Your task to perform on an android device: turn smart compose on in the gmail app Image 0: 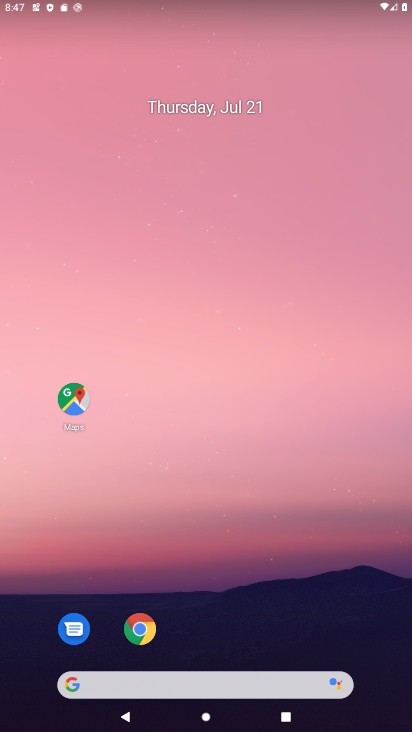
Step 0: drag from (193, 648) to (249, 82)
Your task to perform on an android device: turn smart compose on in the gmail app Image 1: 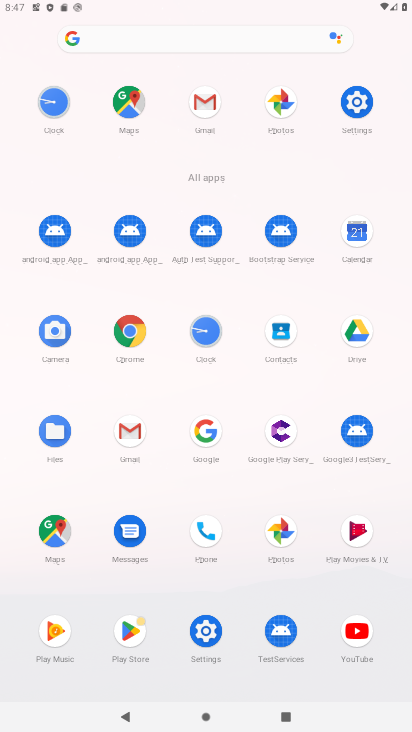
Step 1: click (201, 100)
Your task to perform on an android device: turn smart compose on in the gmail app Image 2: 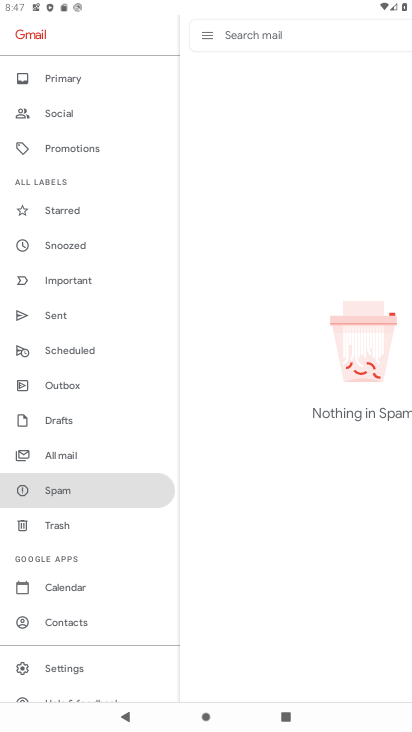
Step 2: click (77, 653)
Your task to perform on an android device: turn smart compose on in the gmail app Image 3: 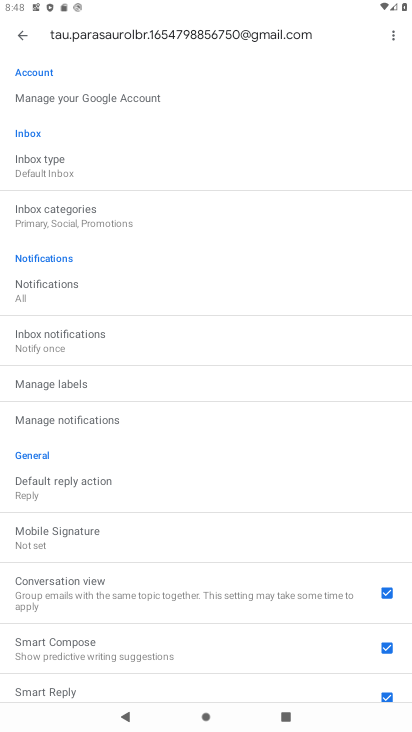
Step 3: task complete